Your task to perform on an android device: Search for pizza restaurants on Maps Image 0: 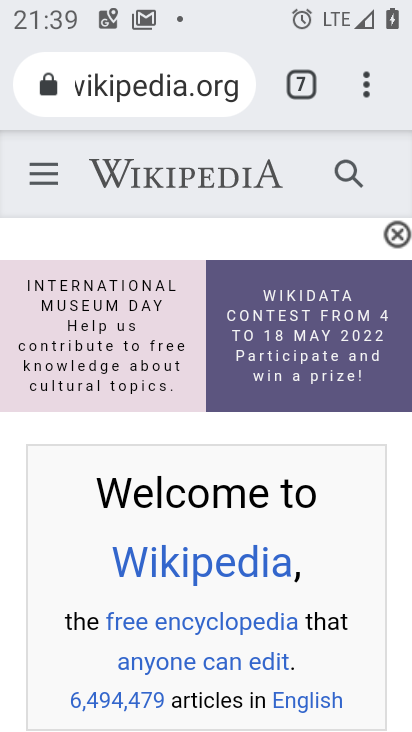
Step 0: press home button
Your task to perform on an android device: Search for pizza restaurants on Maps Image 1: 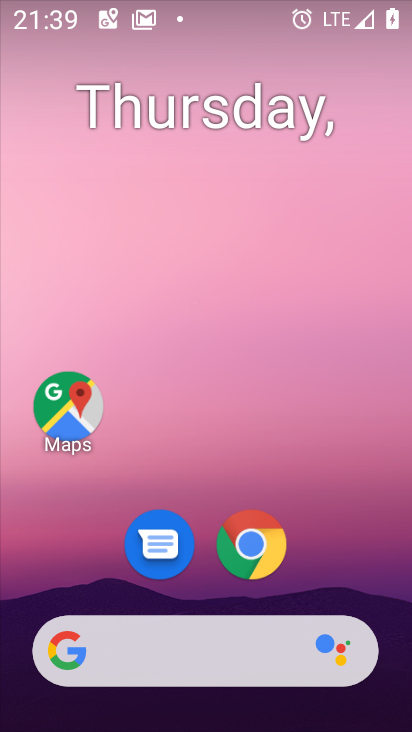
Step 1: click (34, 404)
Your task to perform on an android device: Search for pizza restaurants on Maps Image 2: 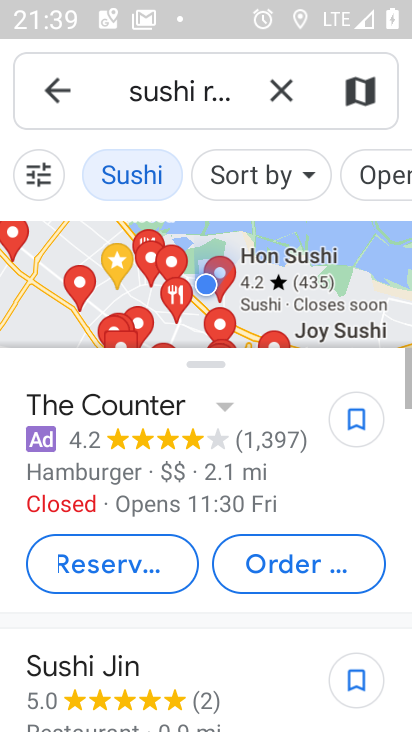
Step 2: click (277, 93)
Your task to perform on an android device: Search for pizza restaurants on Maps Image 3: 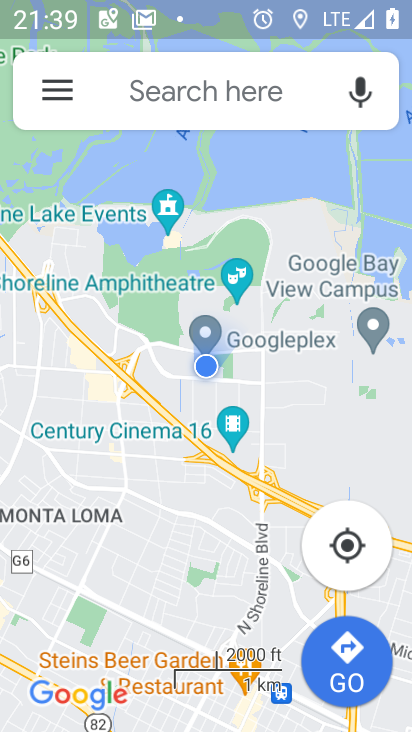
Step 3: click (277, 93)
Your task to perform on an android device: Search for pizza restaurants on Maps Image 4: 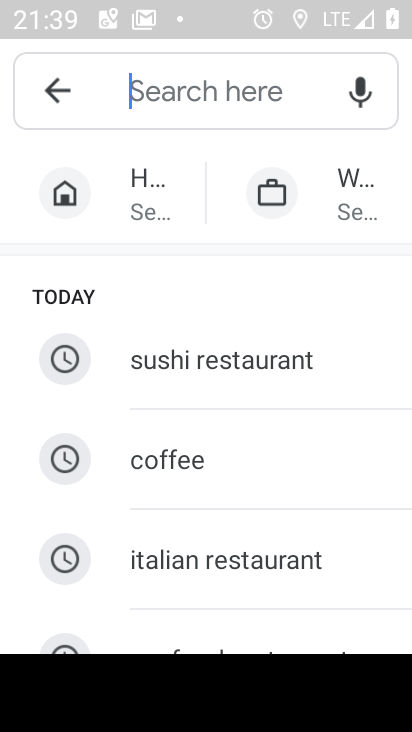
Step 4: drag from (173, 478) to (246, 88)
Your task to perform on an android device: Search for pizza restaurants on Maps Image 5: 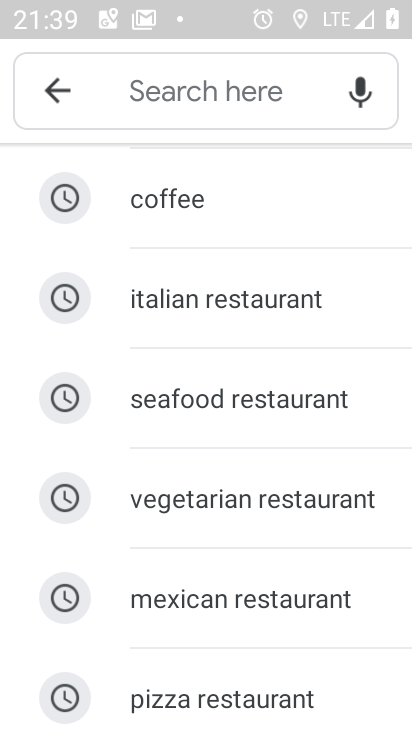
Step 5: click (56, 689)
Your task to perform on an android device: Search for pizza restaurants on Maps Image 6: 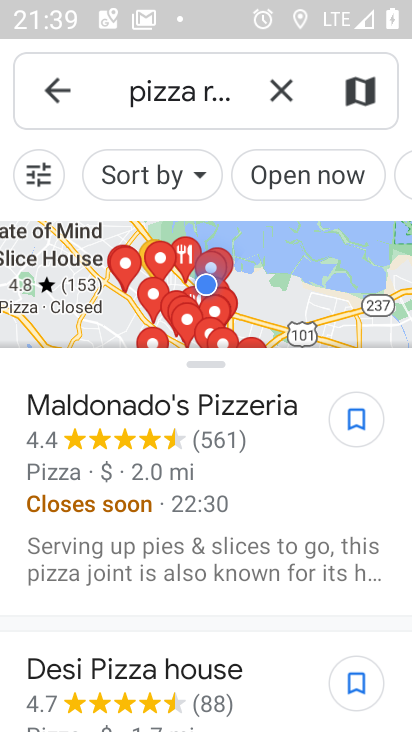
Step 6: task complete